Your task to perform on an android device: When is my next appointment? Image 0: 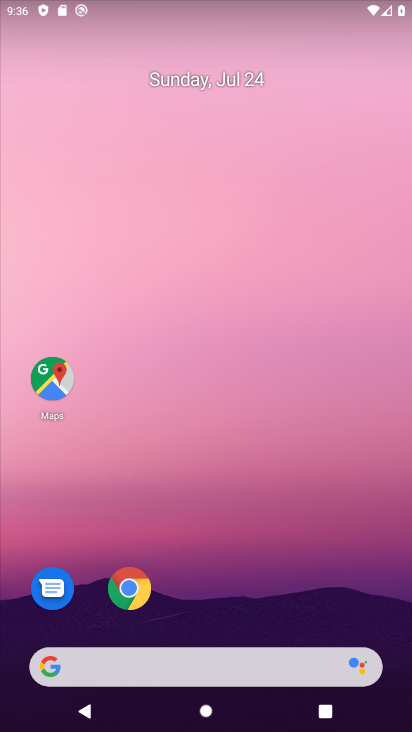
Step 0: drag from (180, 707) to (252, 77)
Your task to perform on an android device: When is my next appointment? Image 1: 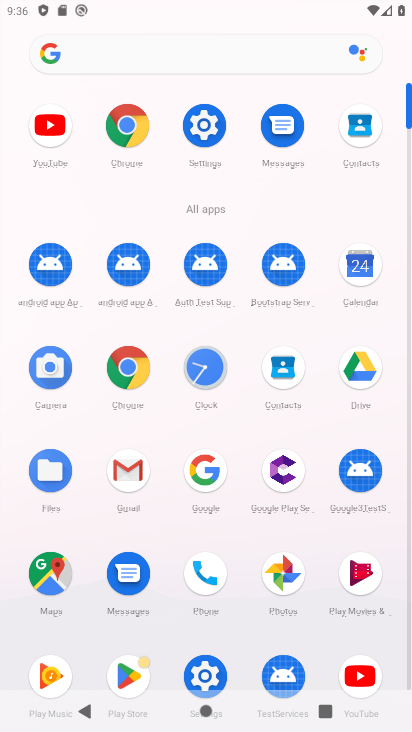
Step 1: click (350, 269)
Your task to perform on an android device: When is my next appointment? Image 2: 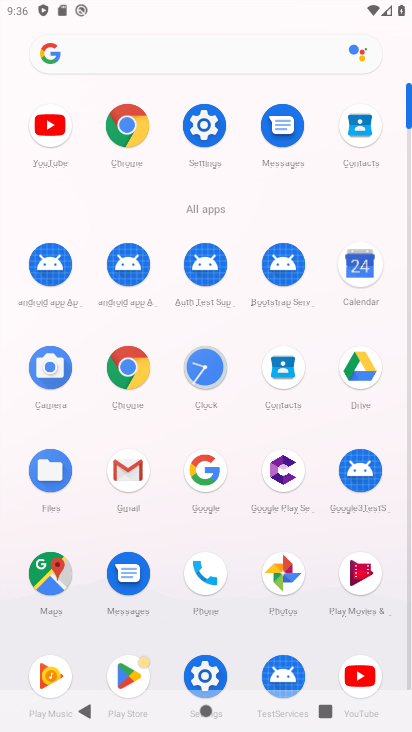
Step 2: click (362, 263)
Your task to perform on an android device: When is my next appointment? Image 3: 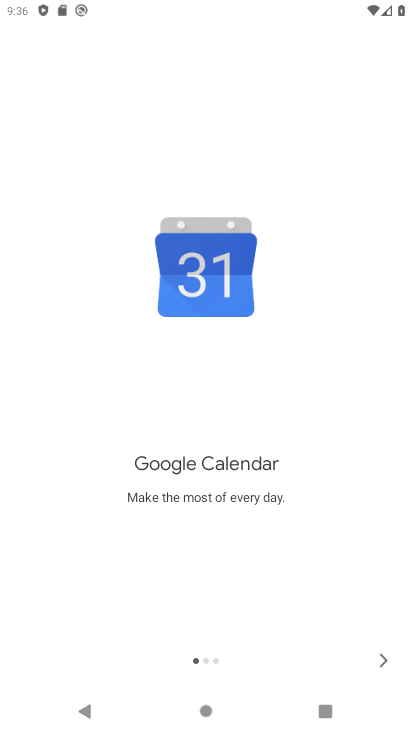
Step 3: click (384, 659)
Your task to perform on an android device: When is my next appointment? Image 4: 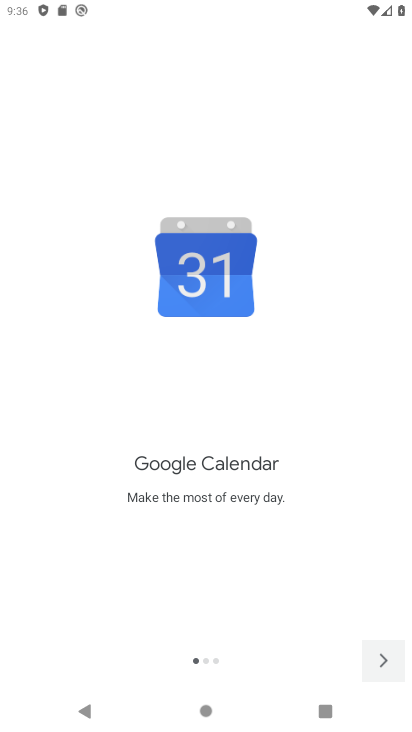
Step 4: click (384, 659)
Your task to perform on an android device: When is my next appointment? Image 5: 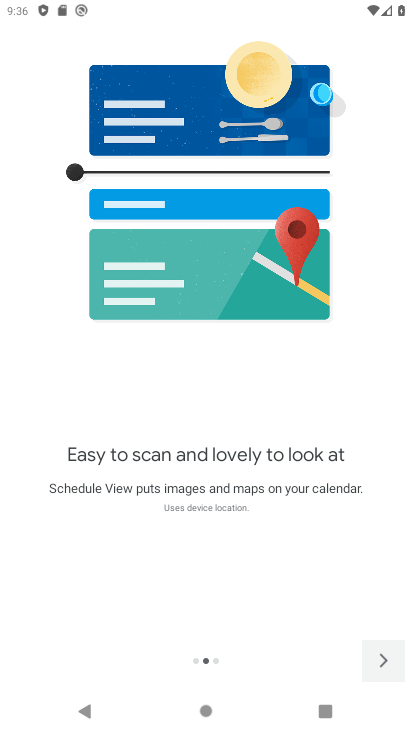
Step 5: click (383, 646)
Your task to perform on an android device: When is my next appointment? Image 6: 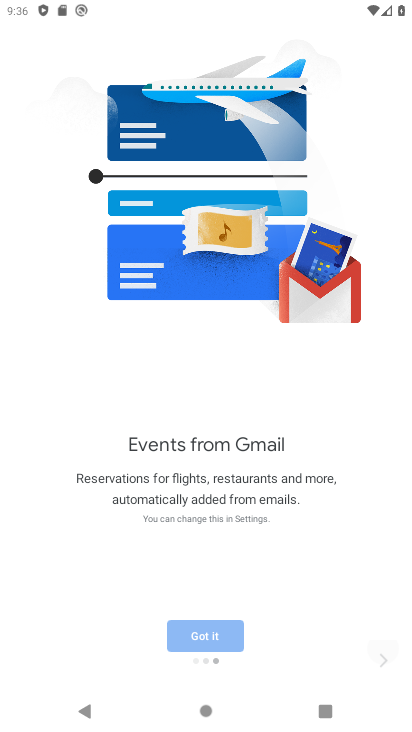
Step 6: click (383, 648)
Your task to perform on an android device: When is my next appointment? Image 7: 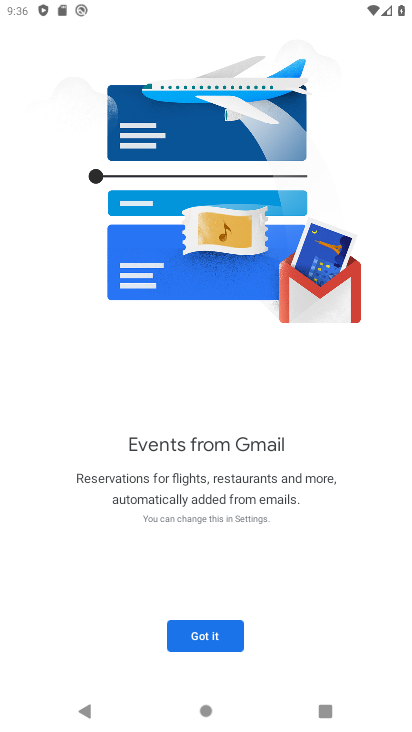
Step 7: click (224, 642)
Your task to perform on an android device: When is my next appointment? Image 8: 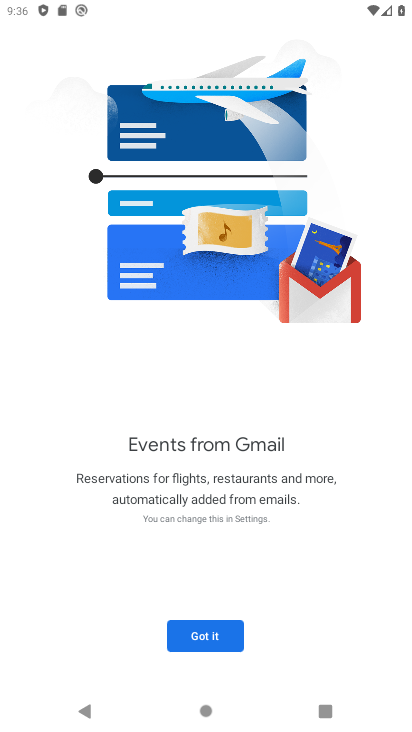
Step 8: click (227, 636)
Your task to perform on an android device: When is my next appointment? Image 9: 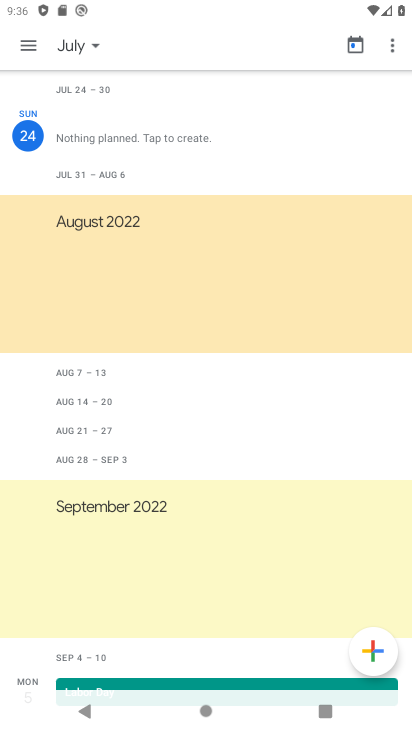
Step 9: click (96, 44)
Your task to perform on an android device: When is my next appointment? Image 10: 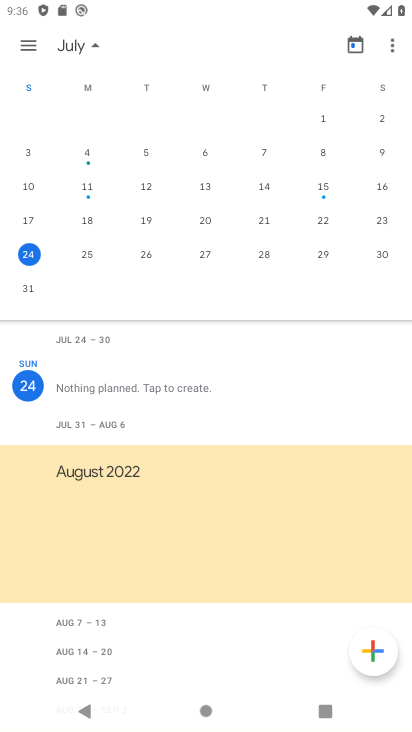
Step 10: click (89, 257)
Your task to perform on an android device: When is my next appointment? Image 11: 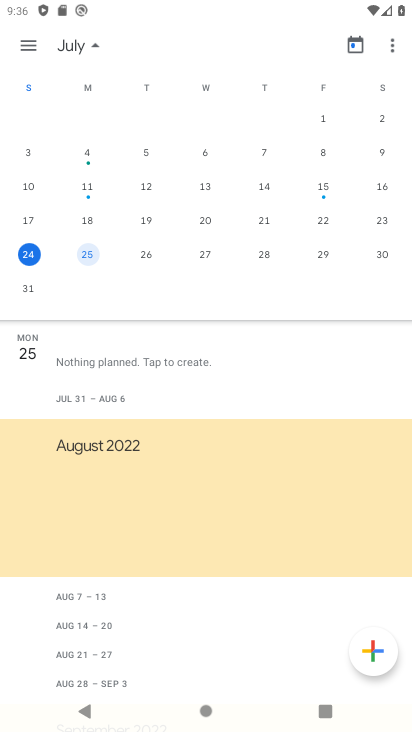
Step 11: task complete